Your task to perform on an android device: open the mobile data screen to see how much data has been used Image 0: 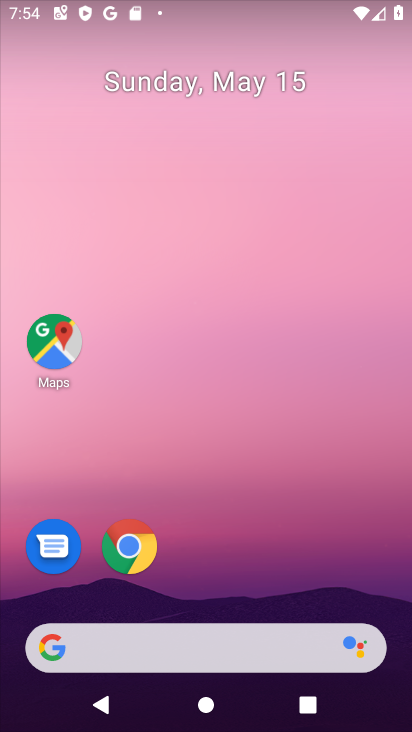
Step 0: drag from (270, 565) to (322, 17)
Your task to perform on an android device: open the mobile data screen to see how much data has been used Image 1: 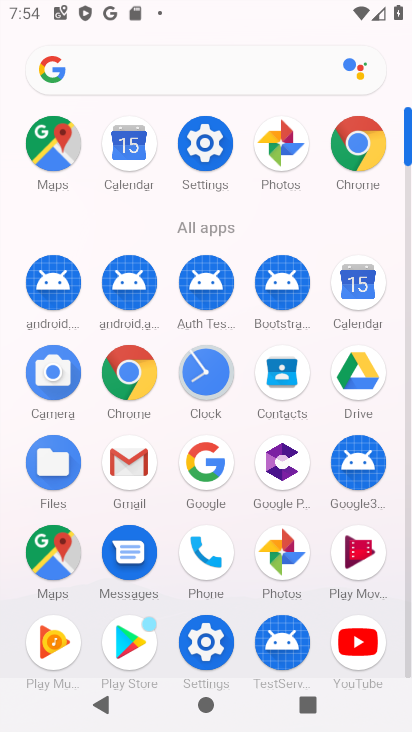
Step 1: click (214, 123)
Your task to perform on an android device: open the mobile data screen to see how much data has been used Image 2: 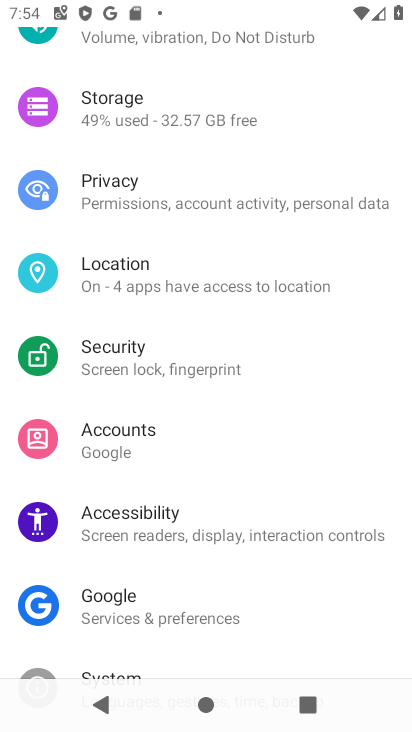
Step 2: drag from (201, 269) to (193, 708)
Your task to perform on an android device: open the mobile data screen to see how much data has been used Image 3: 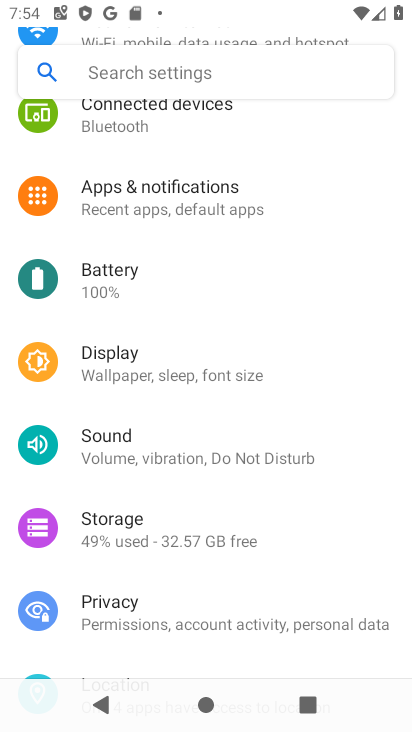
Step 3: drag from (260, 307) to (200, 639)
Your task to perform on an android device: open the mobile data screen to see how much data has been used Image 4: 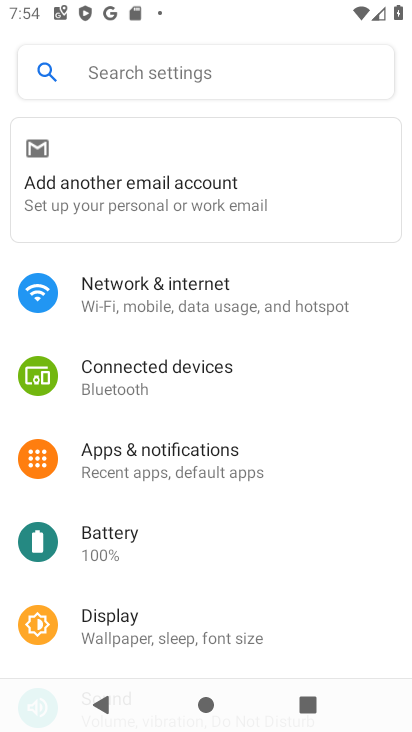
Step 4: click (252, 289)
Your task to perform on an android device: open the mobile data screen to see how much data has been used Image 5: 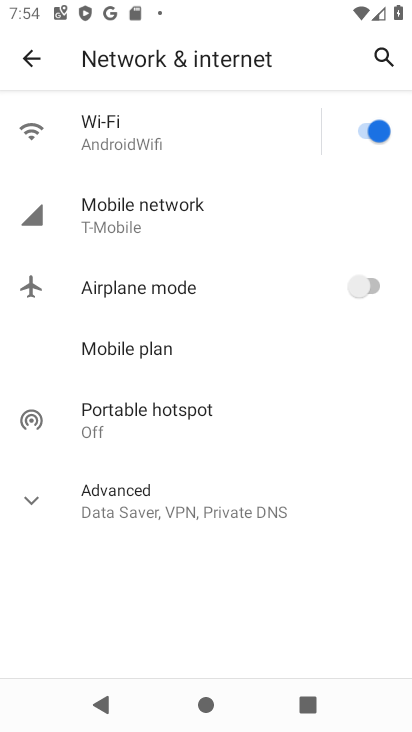
Step 5: click (261, 203)
Your task to perform on an android device: open the mobile data screen to see how much data has been used Image 6: 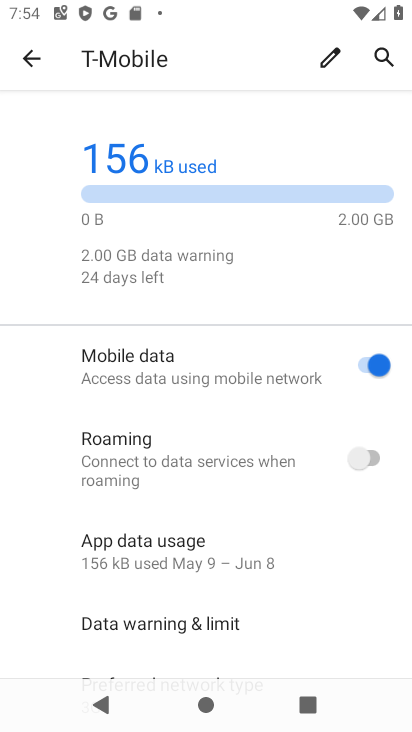
Step 6: task complete